Your task to perform on an android device: change your default location settings in chrome Image 0: 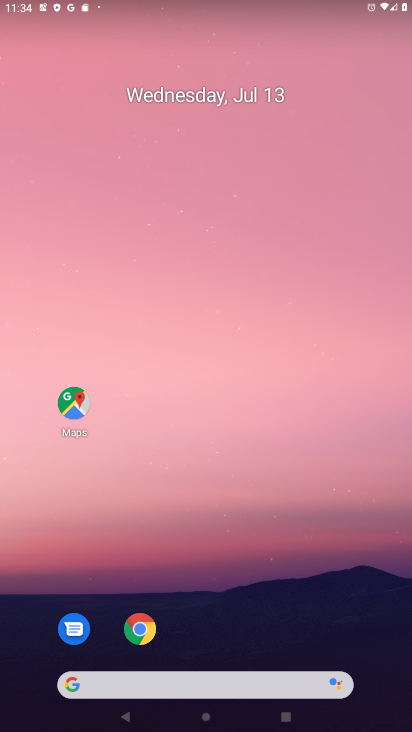
Step 0: drag from (284, 614) to (276, 219)
Your task to perform on an android device: change your default location settings in chrome Image 1: 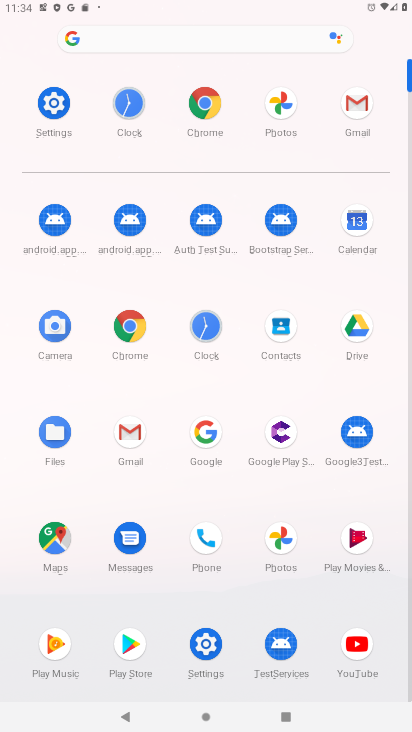
Step 1: click (208, 102)
Your task to perform on an android device: change your default location settings in chrome Image 2: 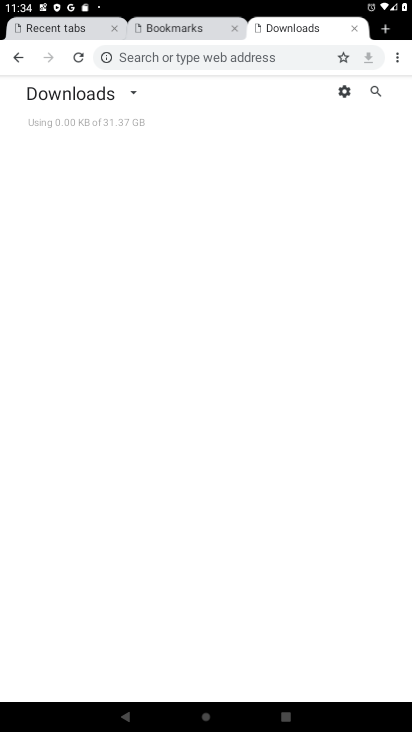
Step 2: click (402, 61)
Your task to perform on an android device: change your default location settings in chrome Image 3: 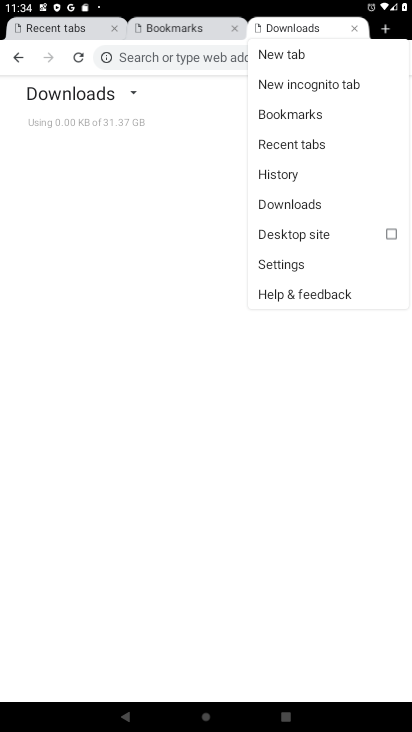
Step 3: click (265, 270)
Your task to perform on an android device: change your default location settings in chrome Image 4: 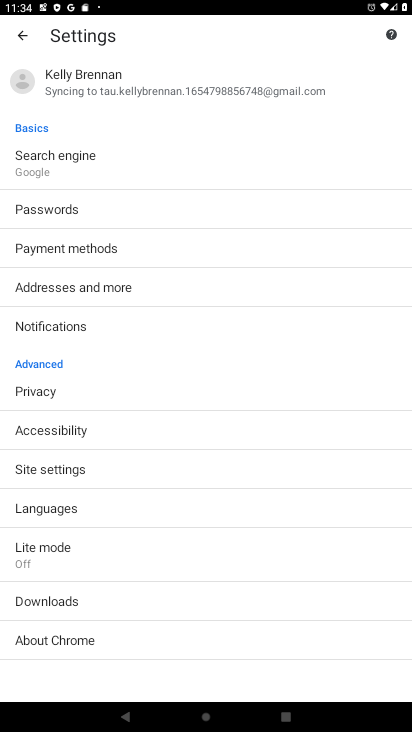
Step 4: click (67, 280)
Your task to perform on an android device: change your default location settings in chrome Image 5: 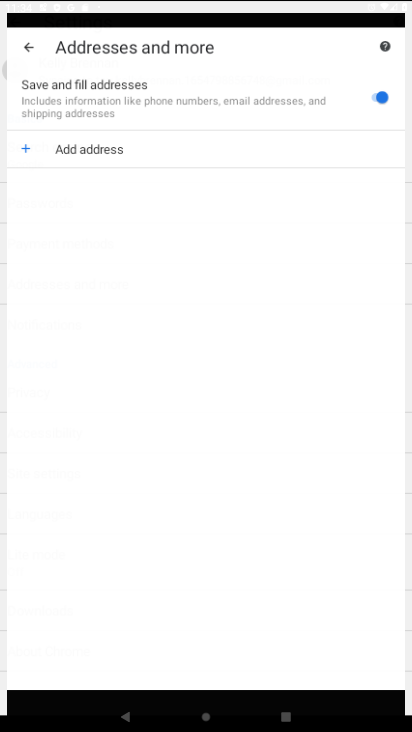
Step 5: task complete